Your task to perform on an android device: Open Wikipedia Image 0: 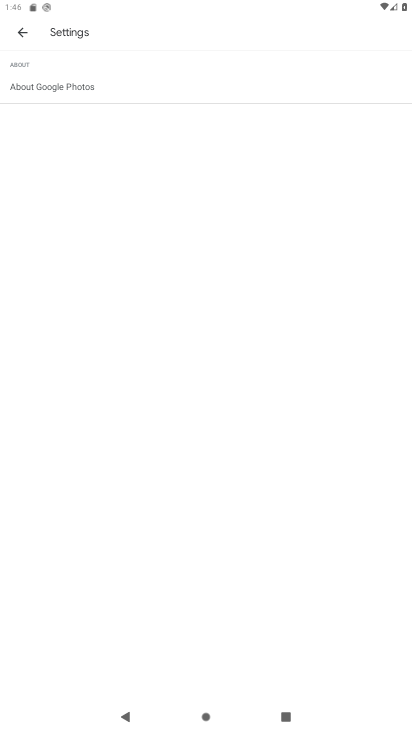
Step 0: press home button
Your task to perform on an android device: Open Wikipedia Image 1: 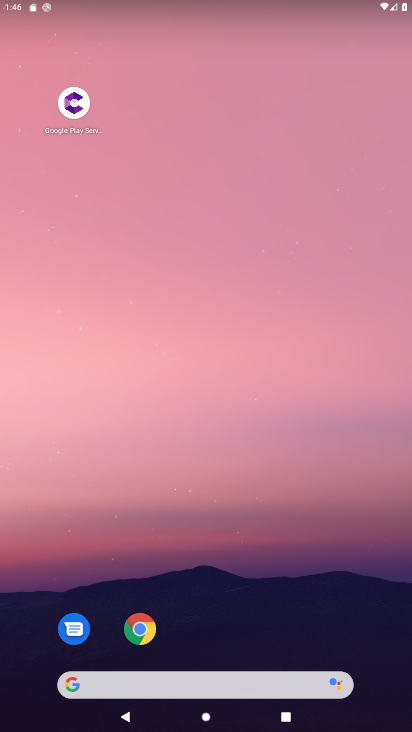
Step 1: click (133, 628)
Your task to perform on an android device: Open Wikipedia Image 2: 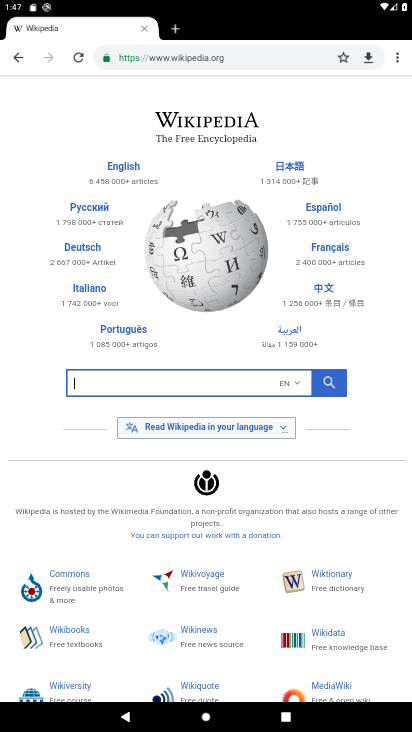
Step 2: task complete